Your task to perform on an android device: turn on showing notifications on the lock screen Image 0: 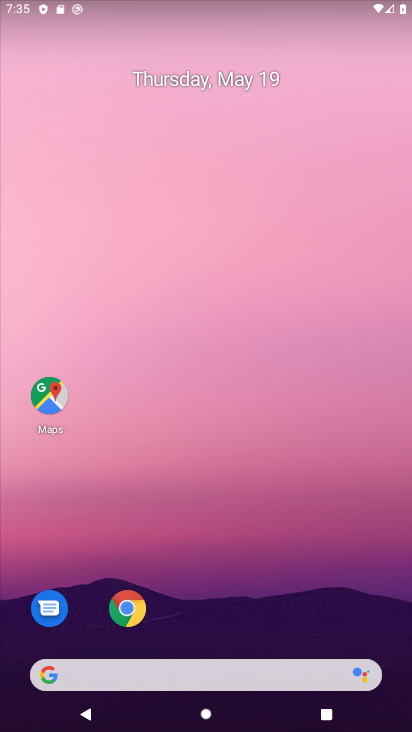
Step 0: drag from (368, 557) to (311, 18)
Your task to perform on an android device: turn on showing notifications on the lock screen Image 1: 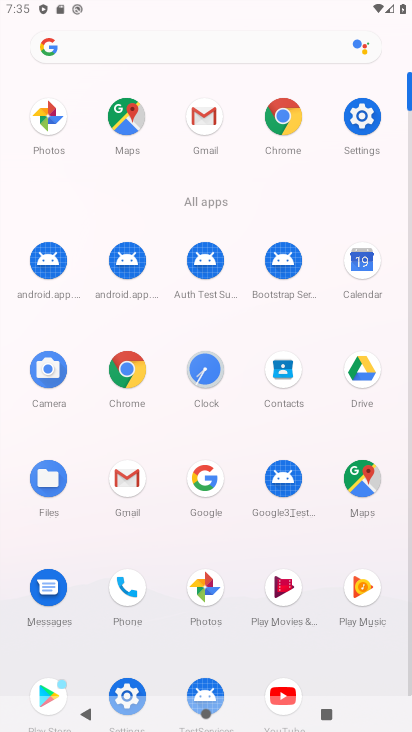
Step 1: click (371, 118)
Your task to perform on an android device: turn on showing notifications on the lock screen Image 2: 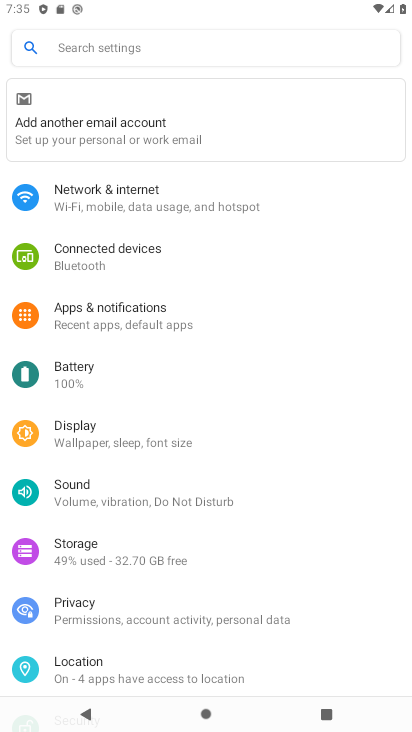
Step 2: click (75, 319)
Your task to perform on an android device: turn on showing notifications on the lock screen Image 3: 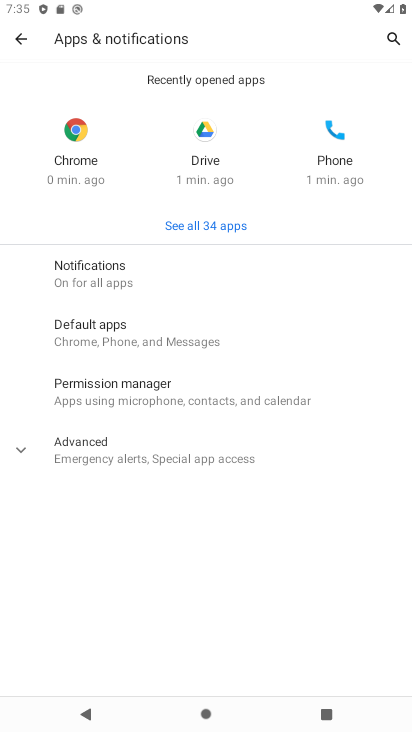
Step 3: click (99, 273)
Your task to perform on an android device: turn on showing notifications on the lock screen Image 4: 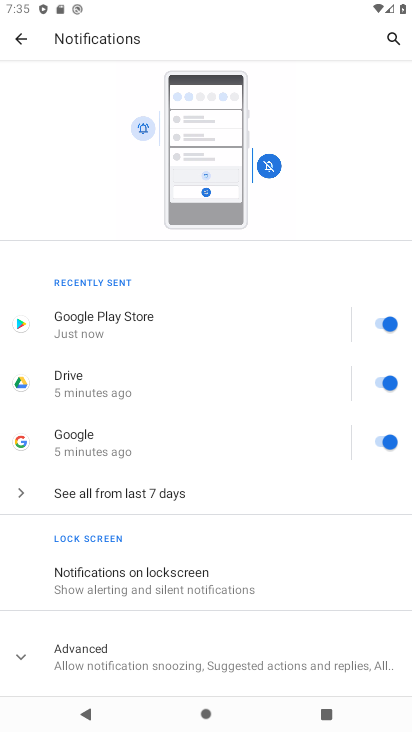
Step 4: click (73, 585)
Your task to perform on an android device: turn on showing notifications on the lock screen Image 5: 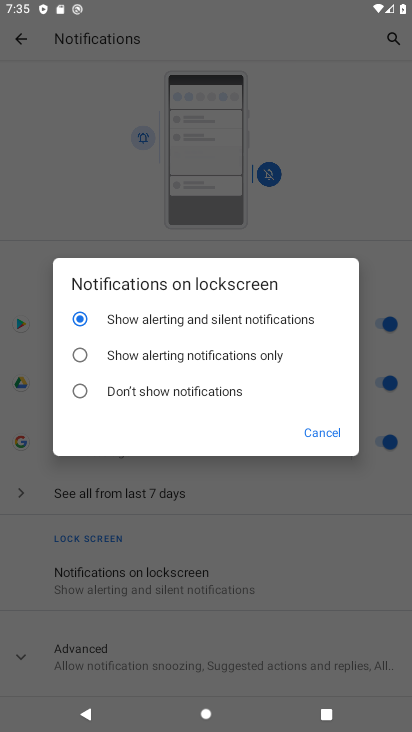
Step 5: task complete